Your task to perform on an android device: find which apps use the phone's location Image 0: 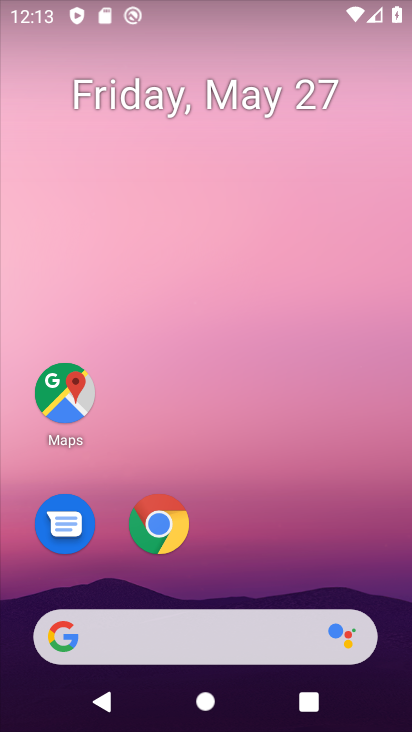
Step 0: drag from (219, 494) to (219, 8)
Your task to perform on an android device: find which apps use the phone's location Image 1: 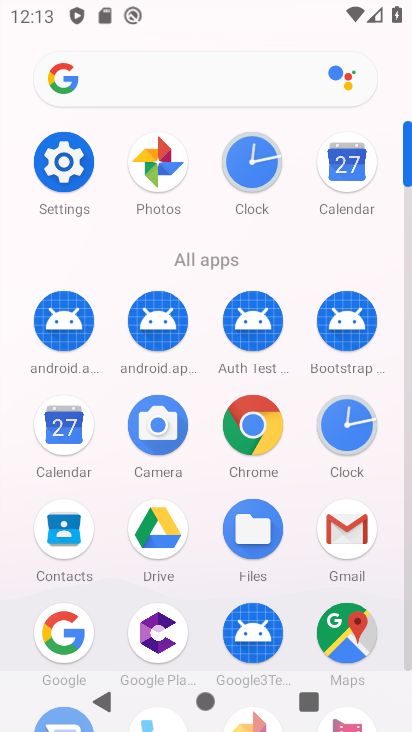
Step 1: click (77, 156)
Your task to perform on an android device: find which apps use the phone's location Image 2: 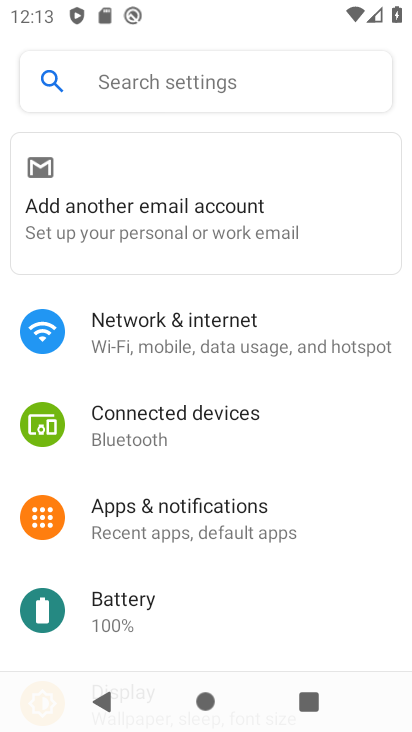
Step 2: drag from (214, 570) to (213, 106)
Your task to perform on an android device: find which apps use the phone's location Image 3: 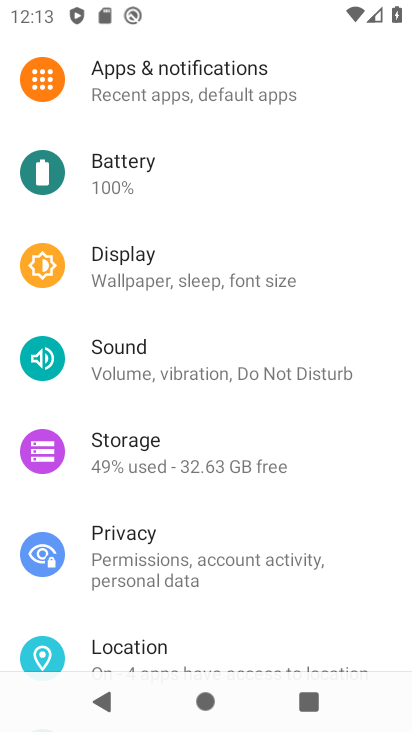
Step 3: drag from (214, 525) to (202, 303)
Your task to perform on an android device: find which apps use the phone's location Image 4: 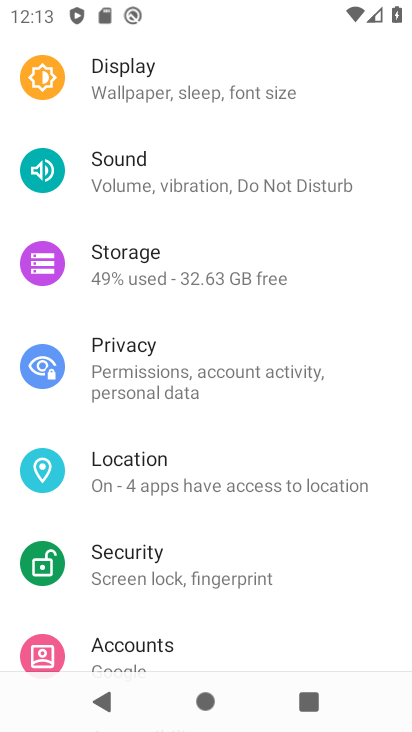
Step 4: click (199, 471)
Your task to perform on an android device: find which apps use the phone's location Image 5: 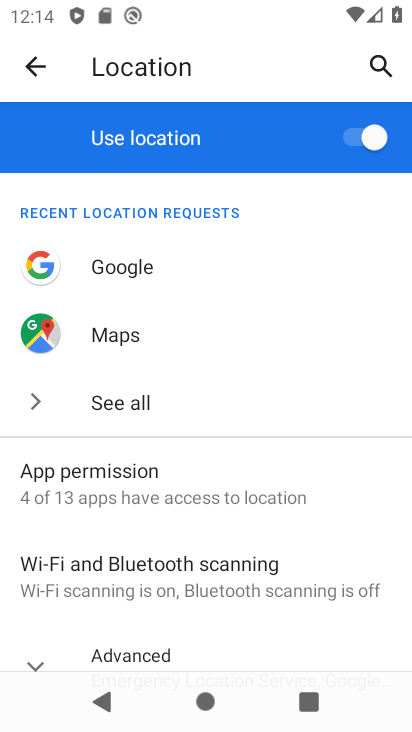
Step 5: click (164, 480)
Your task to perform on an android device: find which apps use the phone's location Image 6: 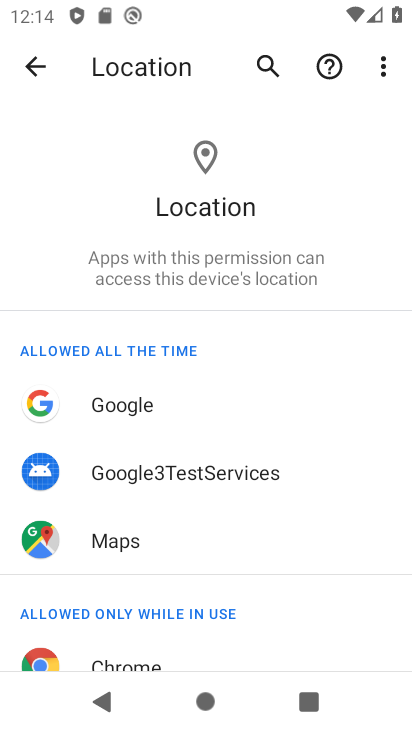
Step 6: task complete